Your task to perform on an android device: Search for seafood restaurants on Google Maps Image 0: 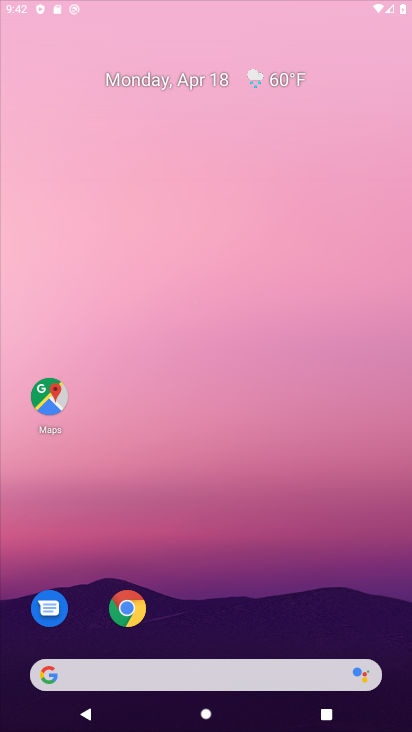
Step 0: click (231, 393)
Your task to perform on an android device: Search for seafood restaurants on Google Maps Image 1: 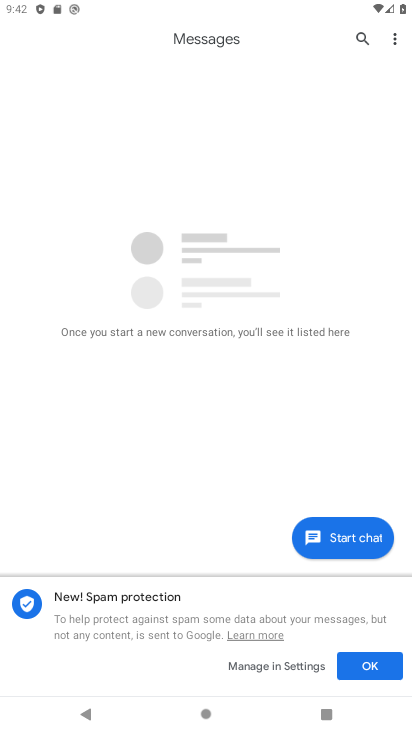
Step 1: drag from (230, 605) to (357, 209)
Your task to perform on an android device: Search for seafood restaurants on Google Maps Image 2: 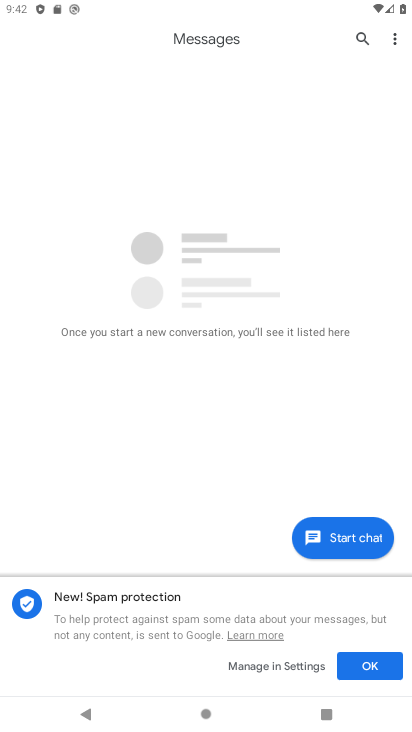
Step 2: drag from (219, 587) to (234, 489)
Your task to perform on an android device: Search for seafood restaurants on Google Maps Image 3: 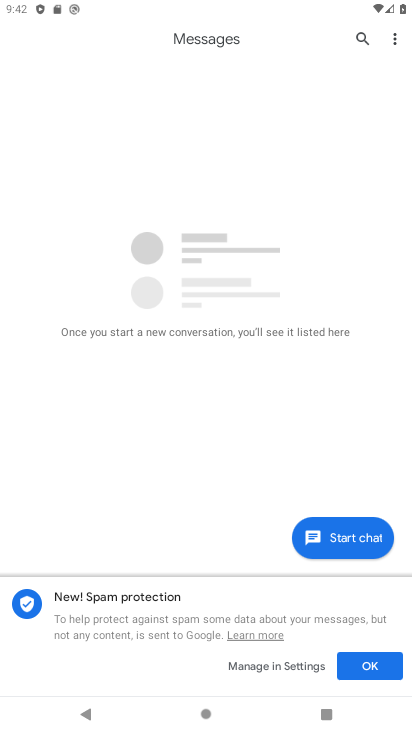
Step 3: drag from (194, 530) to (289, 125)
Your task to perform on an android device: Search for seafood restaurants on Google Maps Image 4: 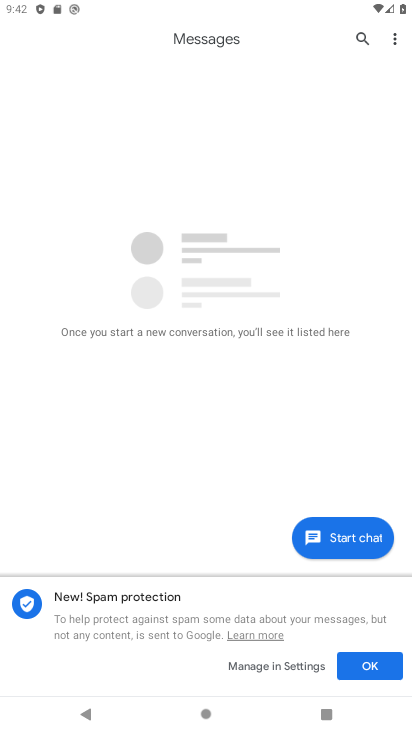
Step 4: drag from (214, 578) to (259, 267)
Your task to perform on an android device: Search for seafood restaurants on Google Maps Image 5: 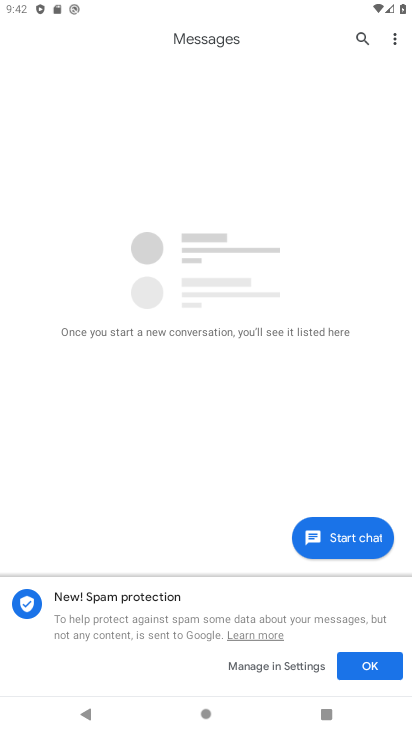
Step 5: press home button
Your task to perform on an android device: Search for seafood restaurants on Google Maps Image 6: 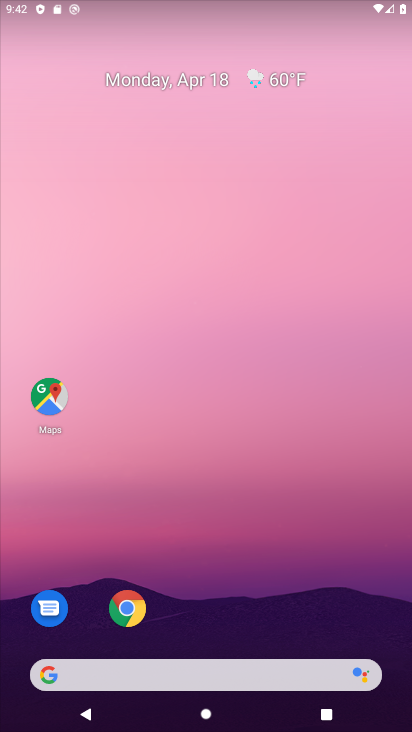
Step 6: drag from (194, 620) to (214, 519)
Your task to perform on an android device: Search for seafood restaurants on Google Maps Image 7: 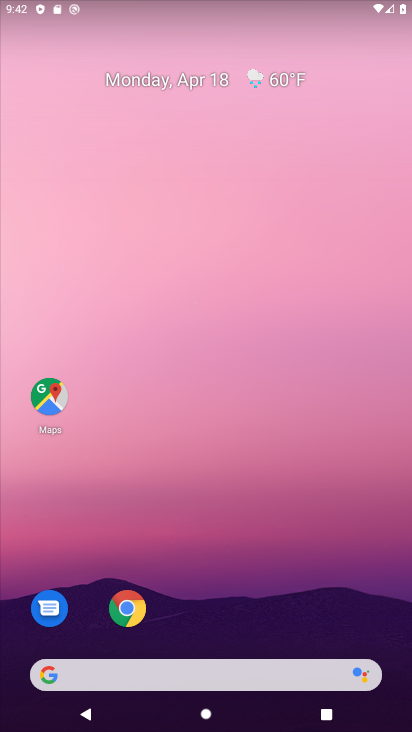
Step 7: drag from (214, 614) to (236, 323)
Your task to perform on an android device: Search for seafood restaurants on Google Maps Image 8: 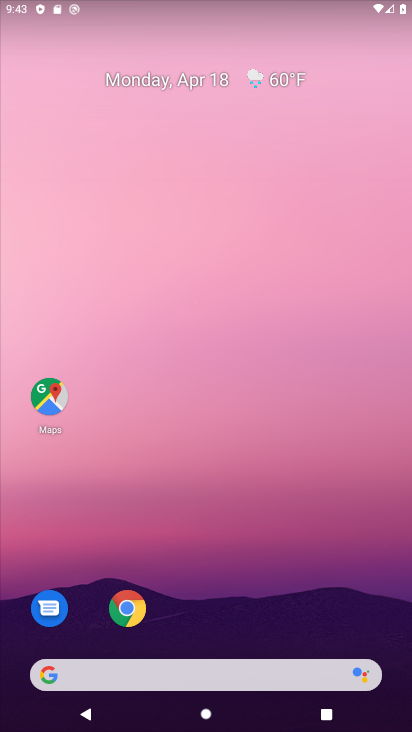
Step 8: drag from (203, 623) to (277, 147)
Your task to perform on an android device: Search for seafood restaurants on Google Maps Image 9: 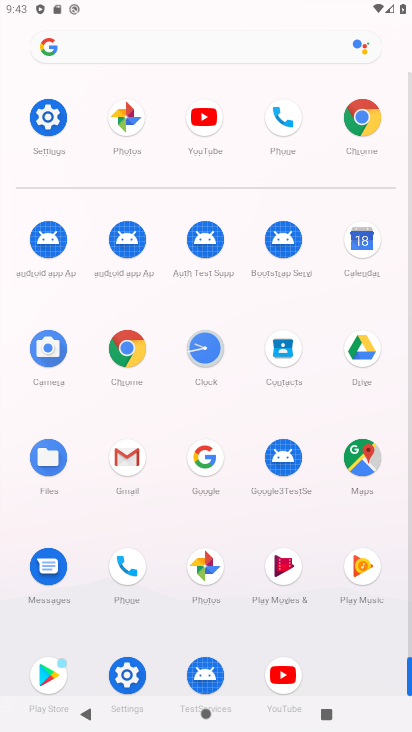
Step 9: drag from (163, 666) to (196, 117)
Your task to perform on an android device: Search for seafood restaurants on Google Maps Image 10: 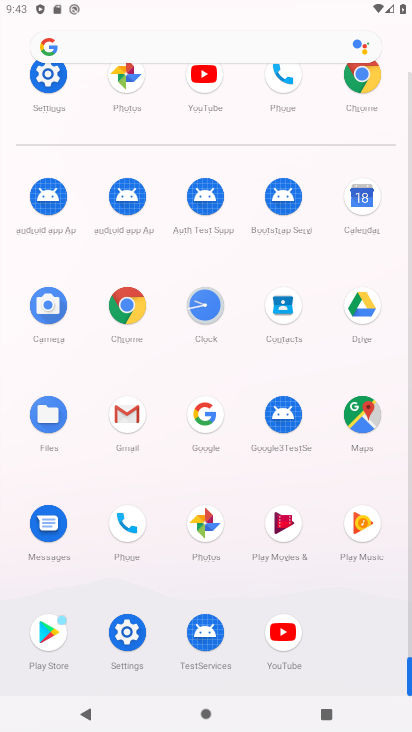
Step 10: click (359, 409)
Your task to perform on an android device: Search for seafood restaurants on Google Maps Image 11: 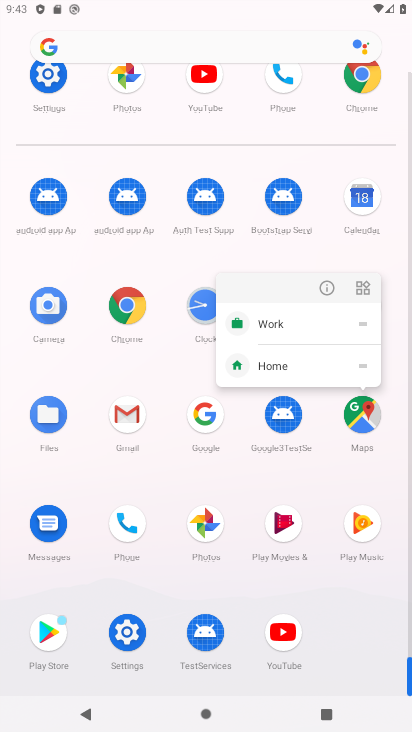
Step 11: click (327, 292)
Your task to perform on an android device: Search for seafood restaurants on Google Maps Image 12: 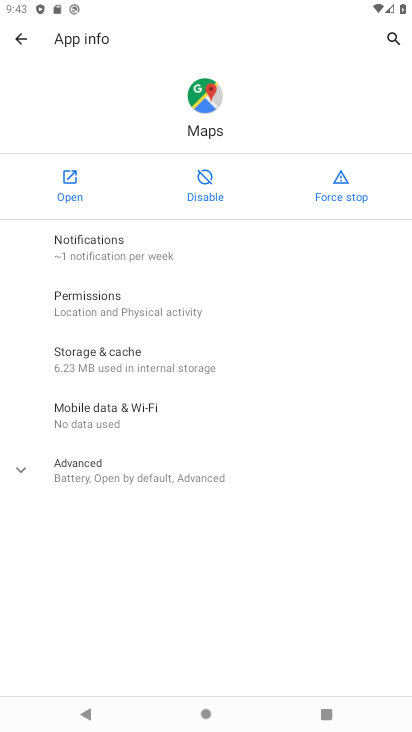
Step 12: click (79, 178)
Your task to perform on an android device: Search for seafood restaurants on Google Maps Image 13: 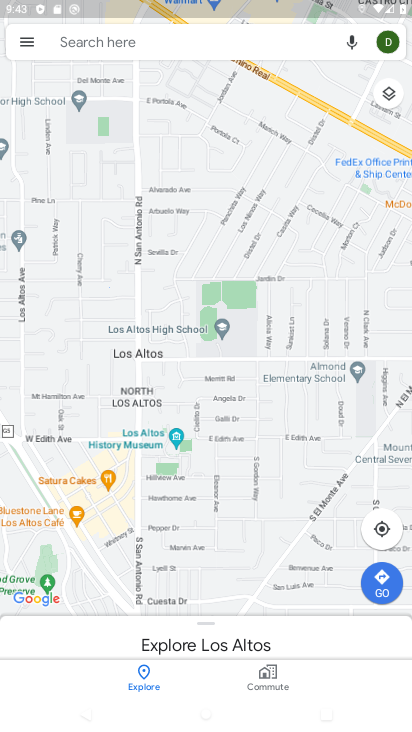
Step 13: drag from (212, 568) to (288, 151)
Your task to perform on an android device: Search for seafood restaurants on Google Maps Image 14: 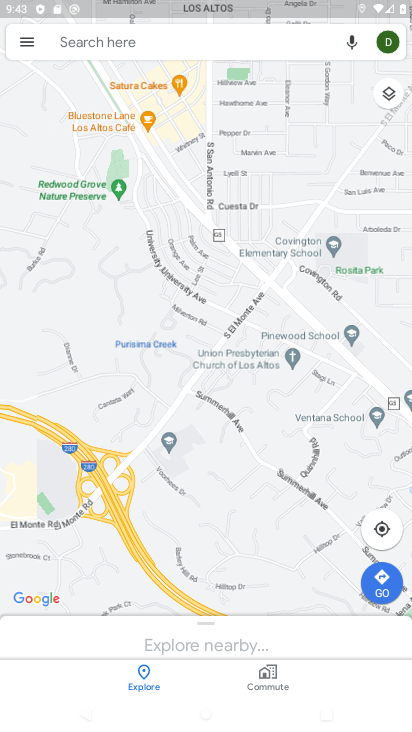
Step 14: drag from (228, 480) to (257, 198)
Your task to perform on an android device: Search for seafood restaurants on Google Maps Image 15: 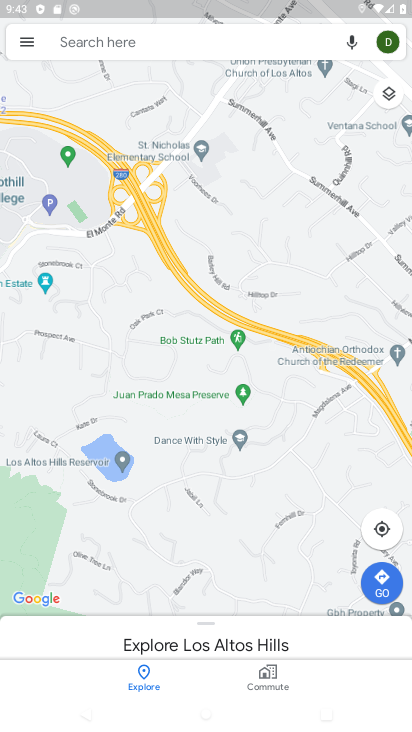
Step 15: drag from (166, 478) to (271, 213)
Your task to perform on an android device: Search for seafood restaurants on Google Maps Image 16: 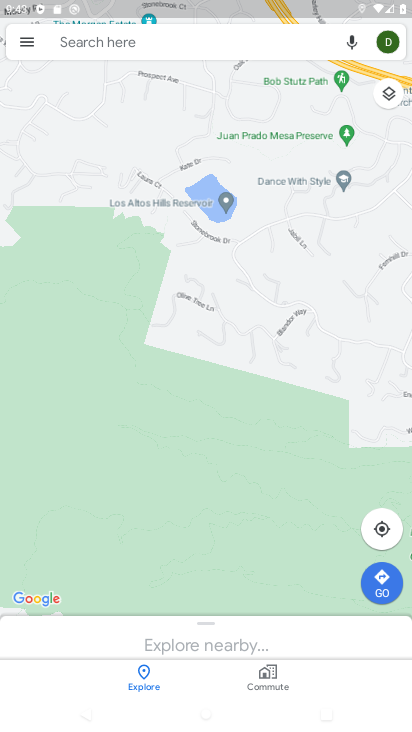
Step 16: drag from (196, 212) to (323, 530)
Your task to perform on an android device: Search for seafood restaurants on Google Maps Image 17: 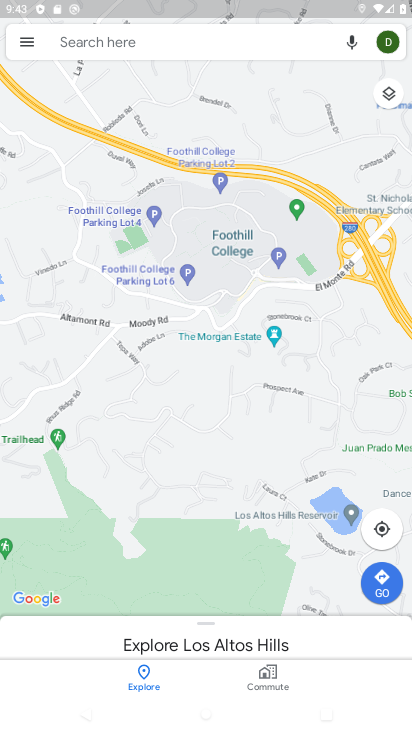
Step 17: drag from (359, 177) to (112, 471)
Your task to perform on an android device: Search for seafood restaurants on Google Maps Image 18: 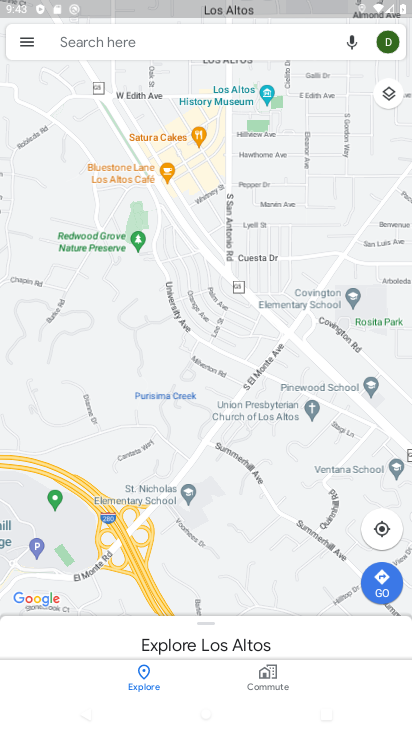
Step 18: drag from (127, 372) to (341, 529)
Your task to perform on an android device: Search for seafood restaurants on Google Maps Image 19: 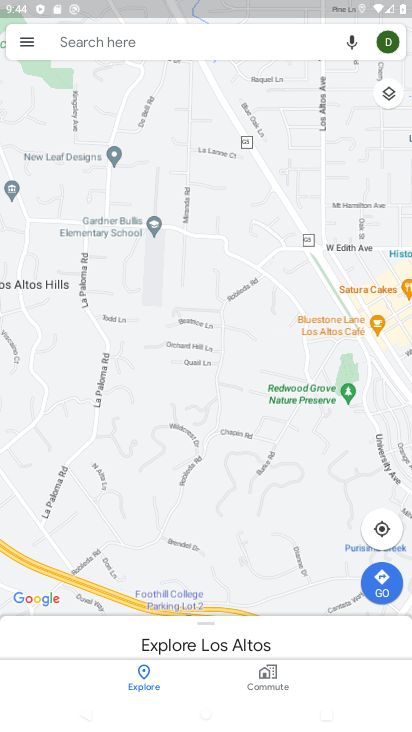
Step 19: click (118, 56)
Your task to perform on an android device: Search for seafood restaurants on Google Maps Image 20: 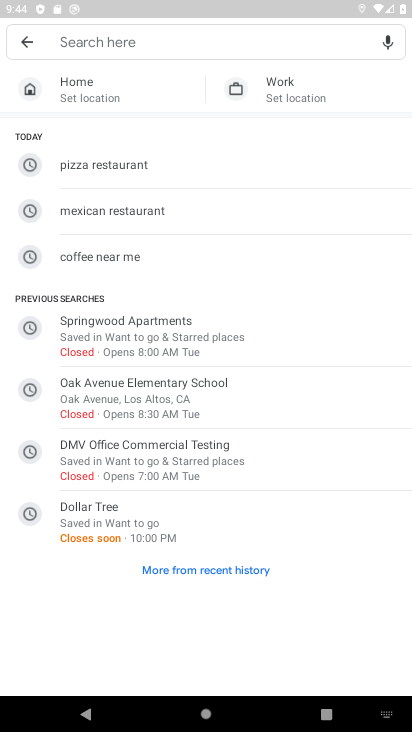
Step 20: type "seafood restaurants"
Your task to perform on an android device: Search for seafood restaurants on Google Maps Image 21: 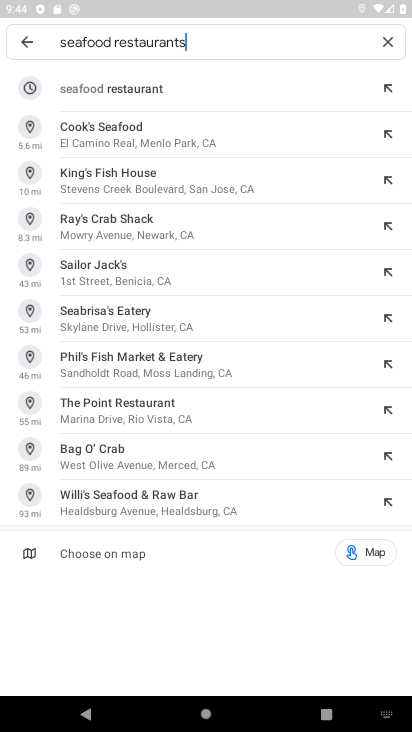
Step 21: click (100, 91)
Your task to perform on an android device: Search for seafood restaurants on Google Maps Image 22: 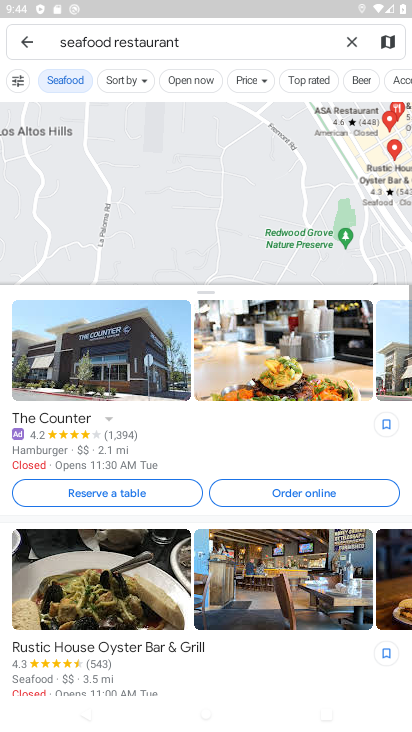
Step 22: task complete